Your task to perform on an android device: clear all cookies in the chrome app Image 0: 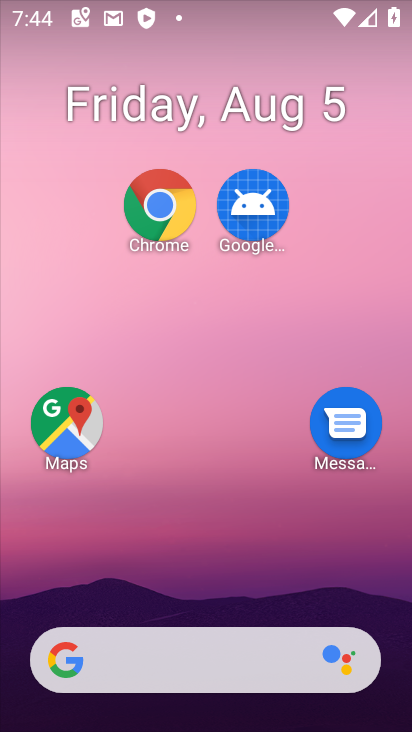
Step 0: drag from (206, 617) to (176, 129)
Your task to perform on an android device: clear all cookies in the chrome app Image 1: 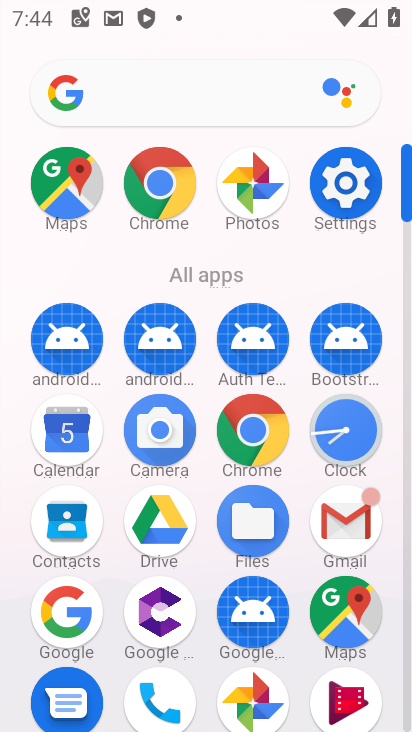
Step 1: click (153, 168)
Your task to perform on an android device: clear all cookies in the chrome app Image 2: 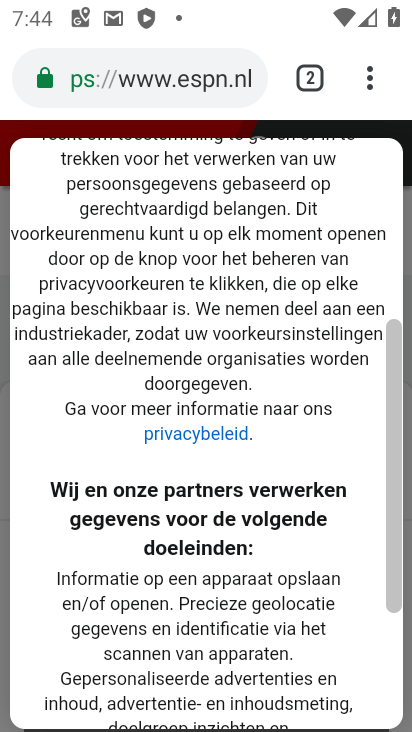
Step 2: click (381, 82)
Your task to perform on an android device: clear all cookies in the chrome app Image 3: 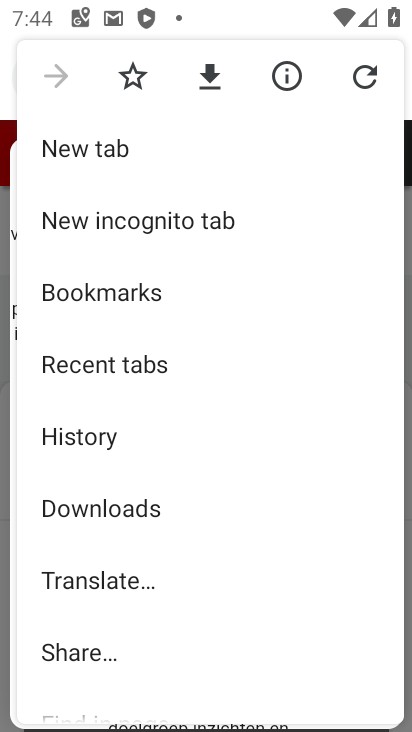
Step 3: click (86, 421)
Your task to perform on an android device: clear all cookies in the chrome app Image 4: 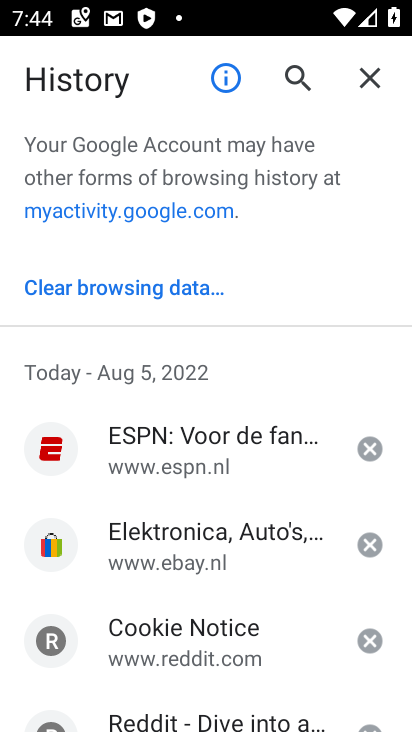
Step 4: click (67, 306)
Your task to perform on an android device: clear all cookies in the chrome app Image 5: 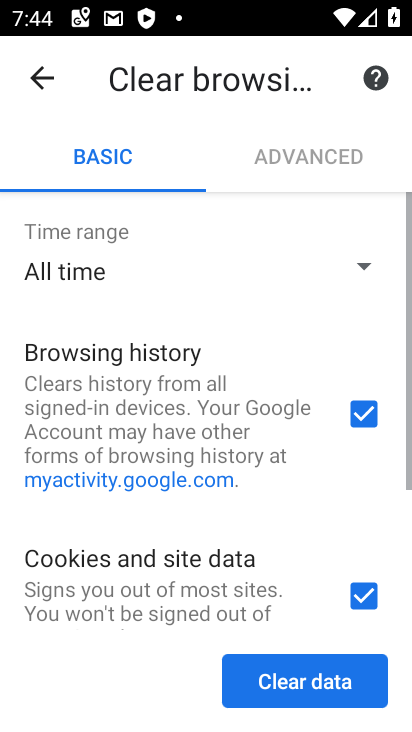
Step 5: click (315, 694)
Your task to perform on an android device: clear all cookies in the chrome app Image 6: 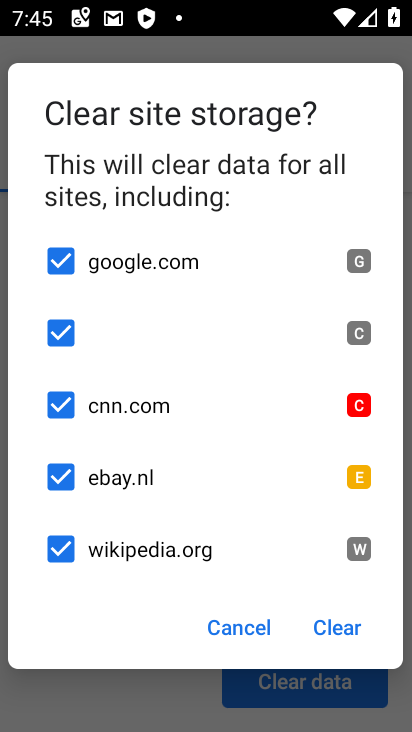
Step 6: click (327, 629)
Your task to perform on an android device: clear all cookies in the chrome app Image 7: 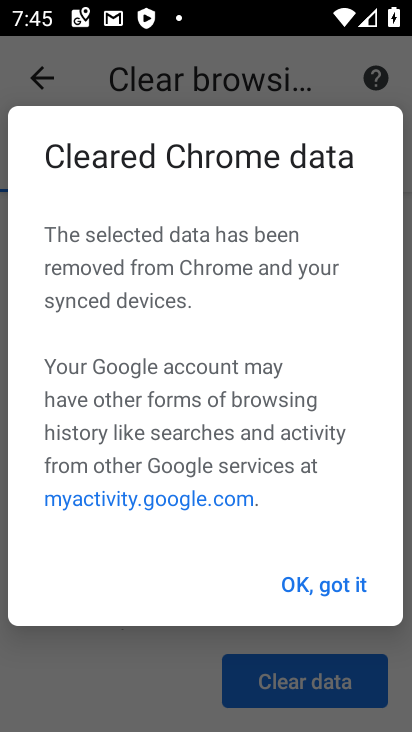
Step 7: click (329, 600)
Your task to perform on an android device: clear all cookies in the chrome app Image 8: 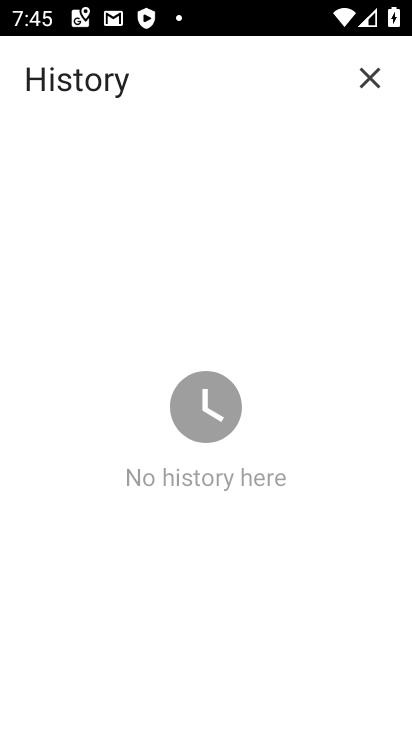
Step 8: task complete